Your task to perform on an android device: turn off translation in the chrome app Image 0: 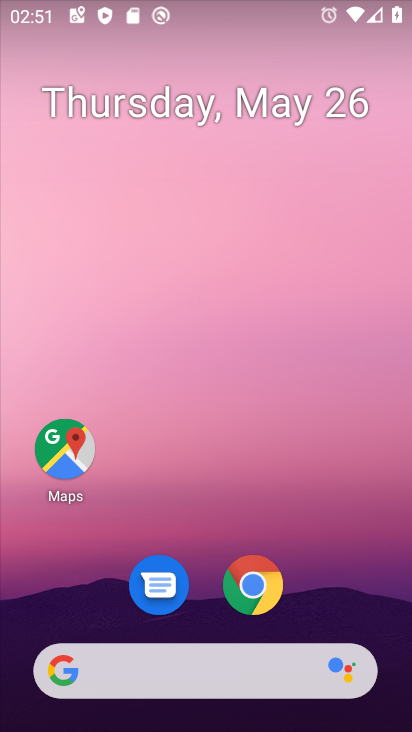
Step 0: click (259, 593)
Your task to perform on an android device: turn off translation in the chrome app Image 1: 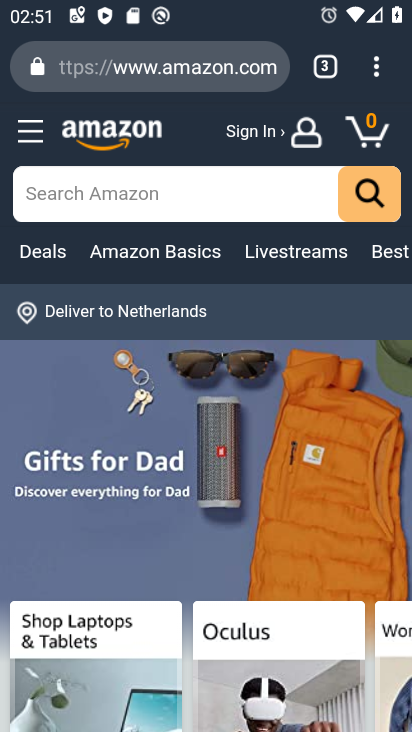
Step 1: click (375, 65)
Your task to perform on an android device: turn off translation in the chrome app Image 2: 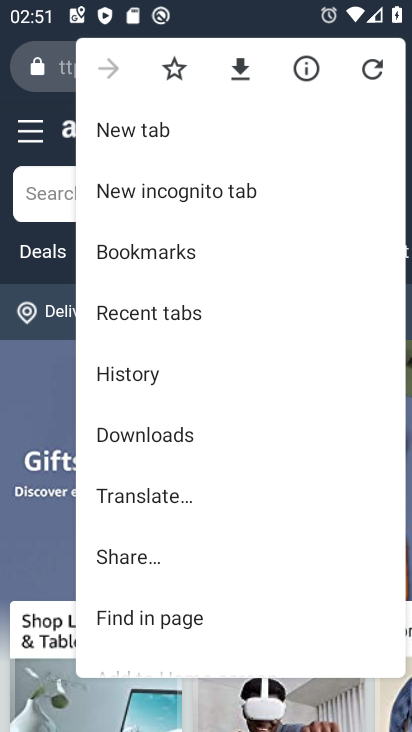
Step 2: drag from (253, 418) to (253, 240)
Your task to perform on an android device: turn off translation in the chrome app Image 3: 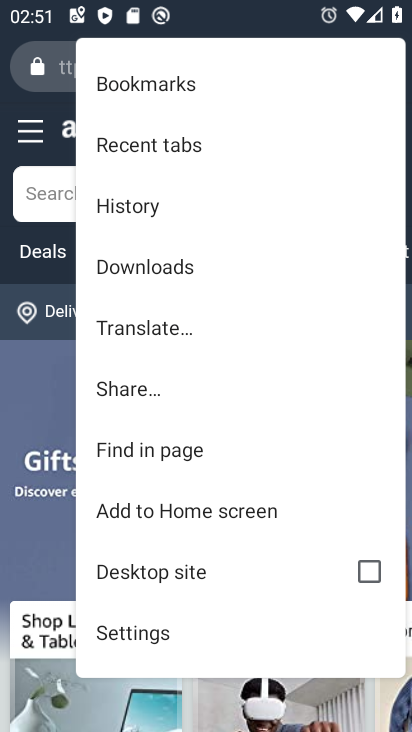
Step 3: click (187, 625)
Your task to perform on an android device: turn off translation in the chrome app Image 4: 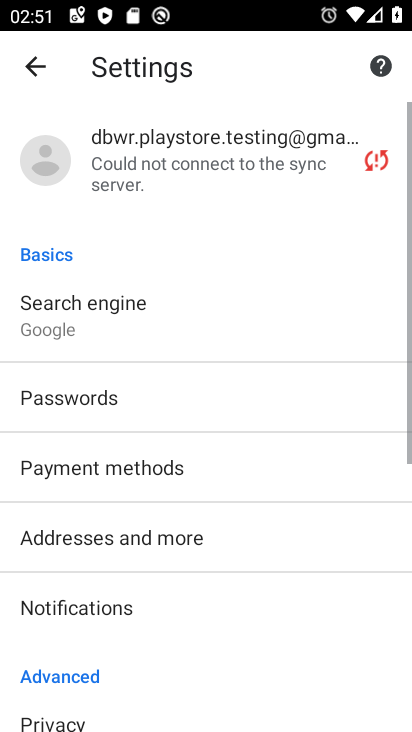
Step 4: drag from (193, 614) to (202, 216)
Your task to perform on an android device: turn off translation in the chrome app Image 5: 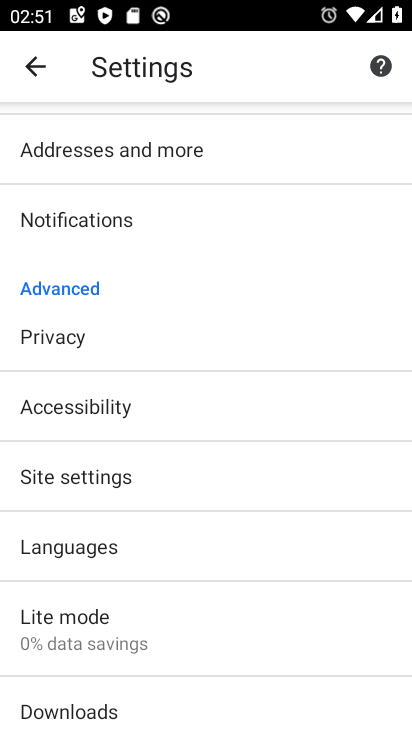
Step 5: click (154, 550)
Your task to perform on an android device: turn off translation in the chrome app Image 6: 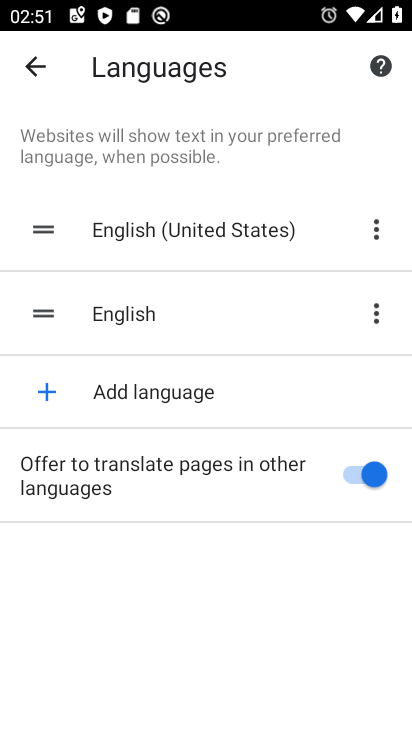
Step 6: click (356, 471)
Your task to perform on an android device: turn off translation in the chrome app Image 7: 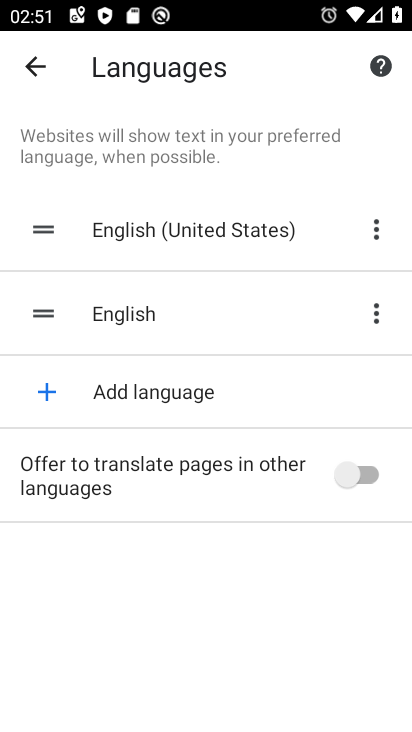
Step 7: task complete